Your task to perform on an android device: find which apps use the phone's location Image 0: 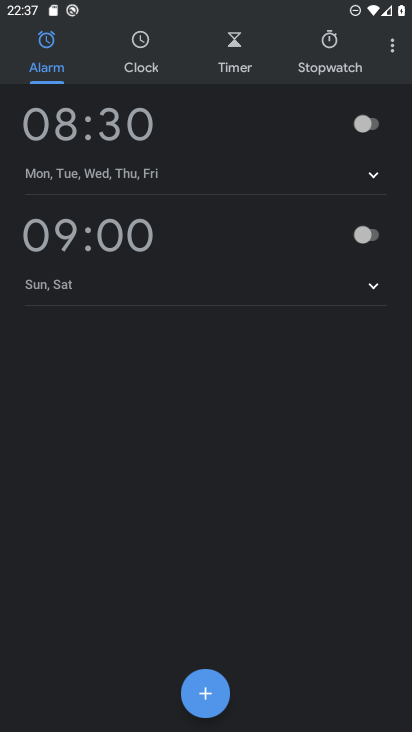
Step 0: press home button
Your task to perform on an android device: find which apps use the phone's location Image 1: 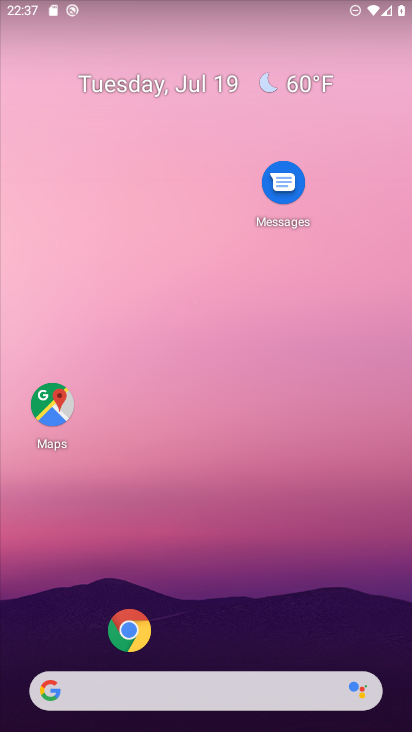
Step 1: drag from (20, 702) to (213, 54)
Your task to perform on an android device: find which apps use the phone's location Image 2: 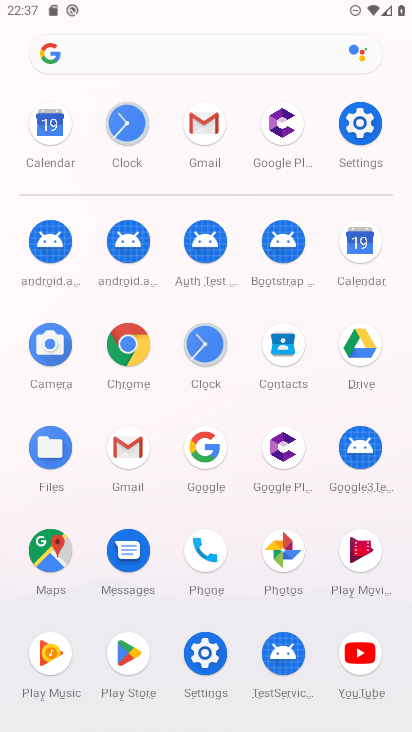
Step 2: click (192, 658)
Your task to perform on an android device: find which apps use the phone's location Image 3: 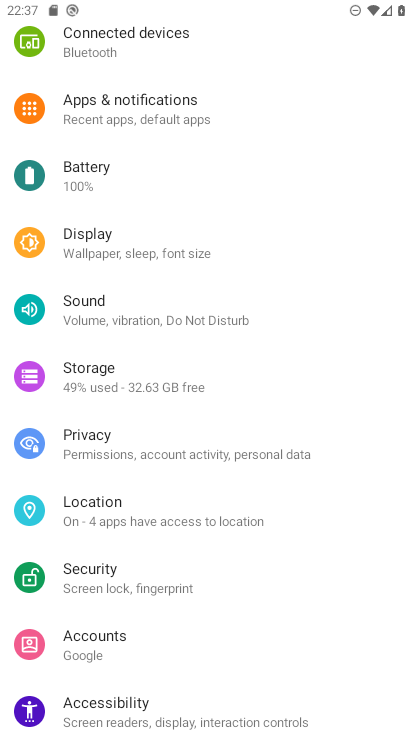
Step 3: click (191, 115)
Your task to perform on an android device: find which apps use the phone's location Image 4: 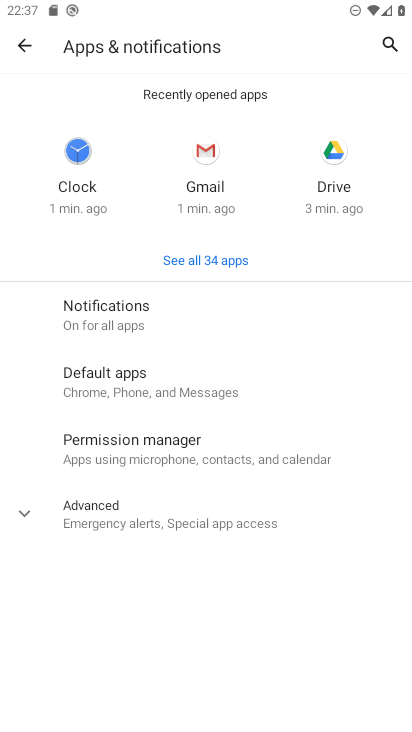
Step 4: click (99, 445)
Your task to perform on an android device: find which apps use the phone's location Image 5: 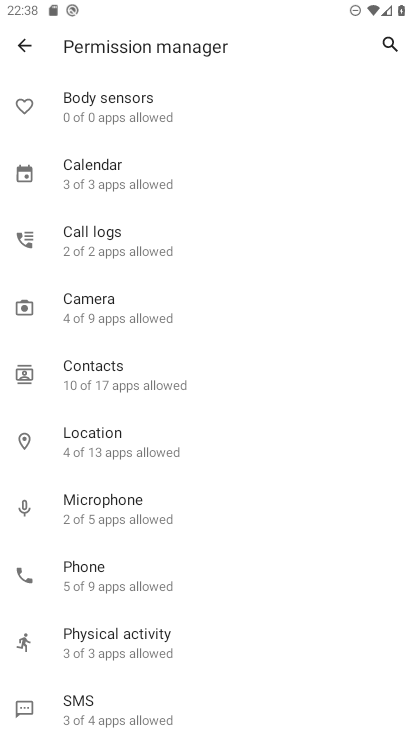
Step 5: task complete